Your task to perform on an android device: Open Reddit.com Image 0: 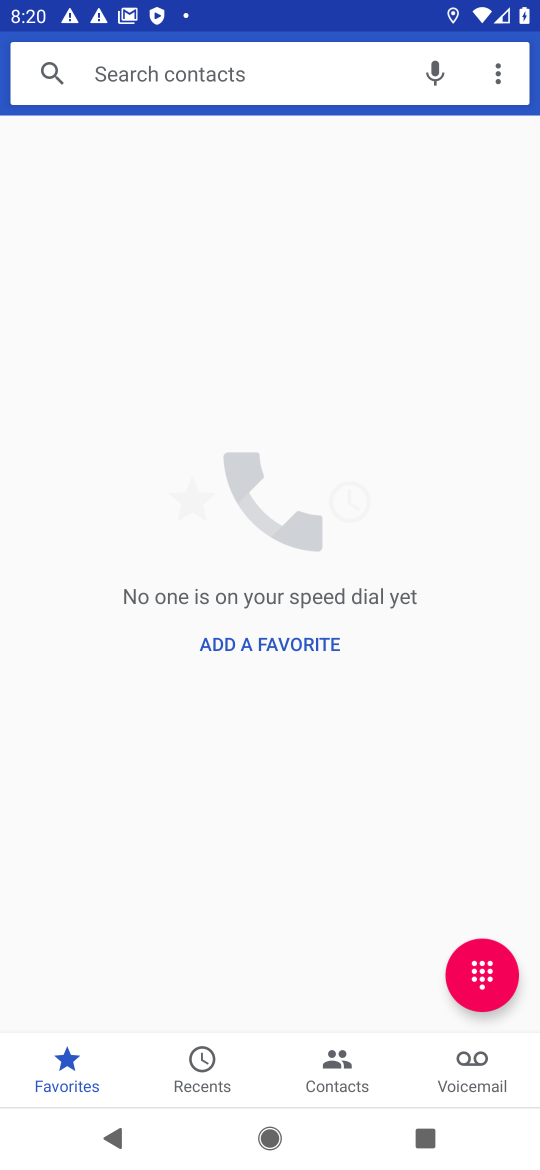
Step 0: press home button
Your task to perform on an android device: Open Reddit.com Image 1: 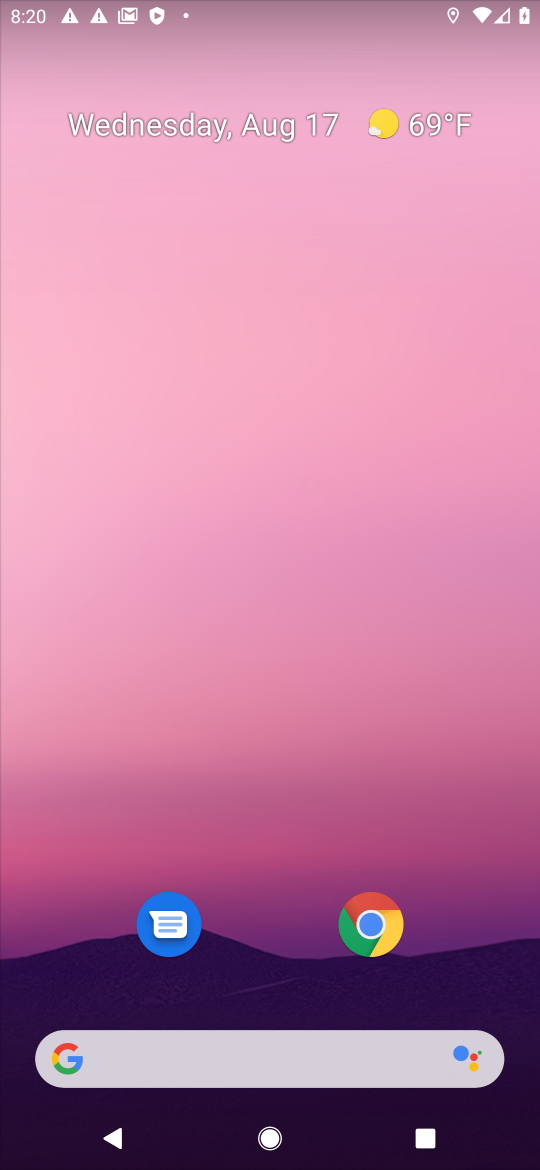
Step 1: drag from (308, 957) to (400, 41)
Your task to perform on an android device: Open Reddit.com Image 2: 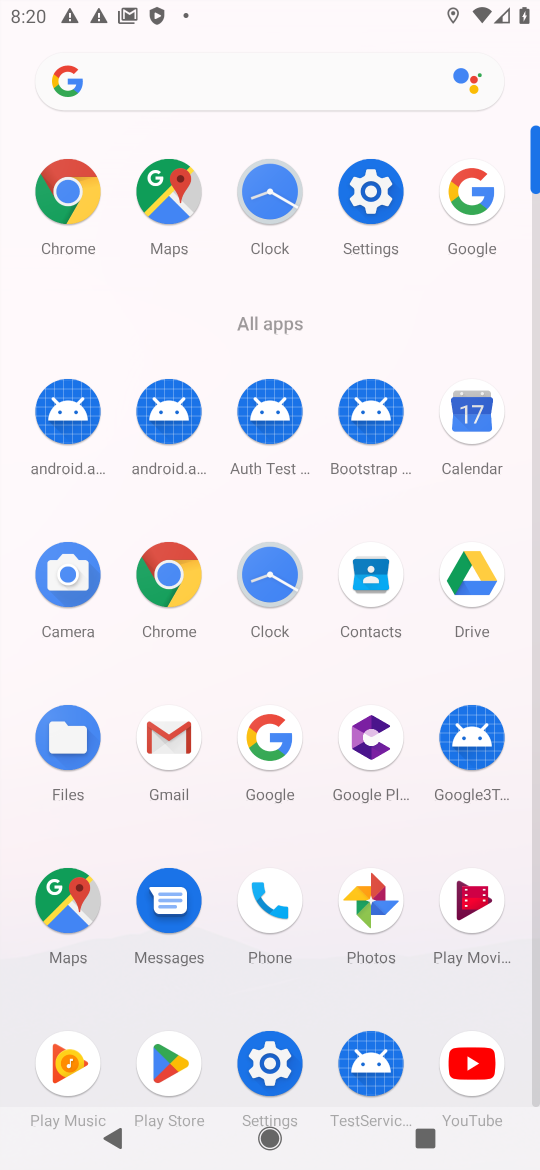
Step 2: click (179, 559)
Your task to perform on an android device: Open Reddit.com Image 3: 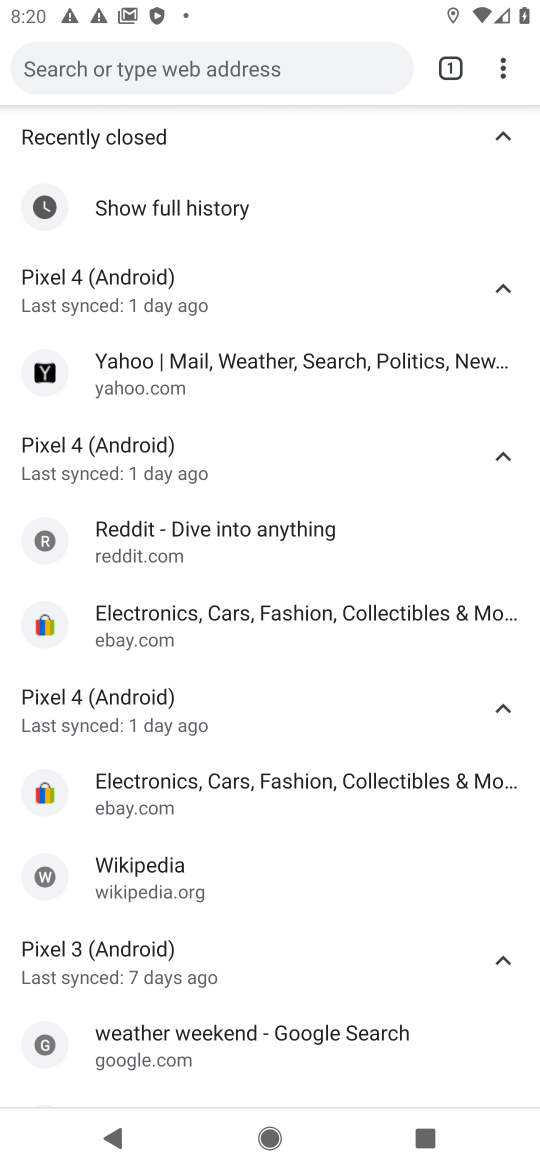
Step 3: click (358, 70)
Your task to perform on an android device: Open Reddit.com Image 4: 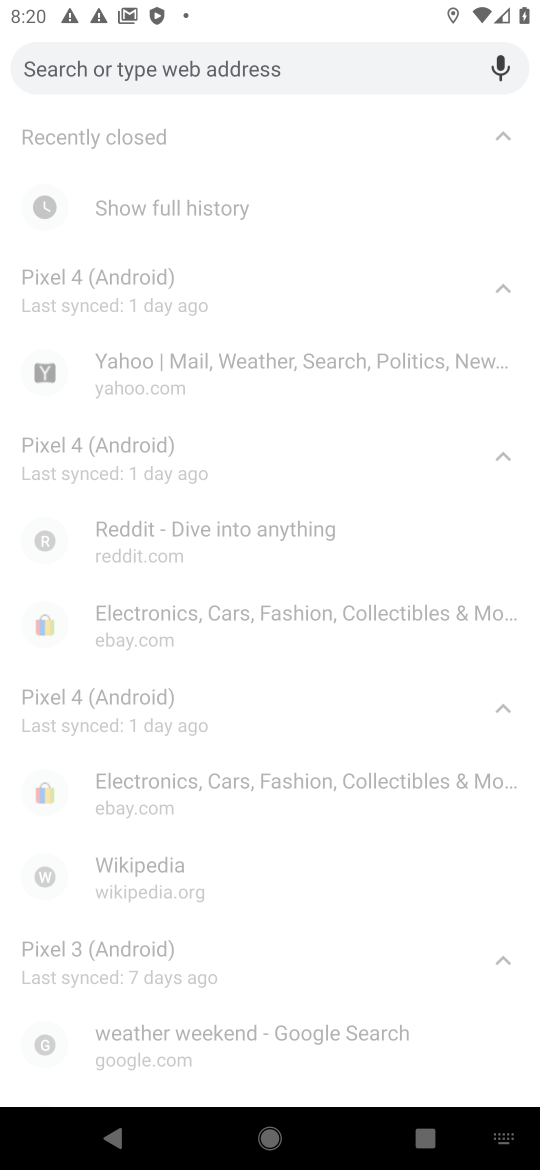
Step 4: type " Reddit.com"
Your task to perform on an android device: Open Reddit.com Image 5: 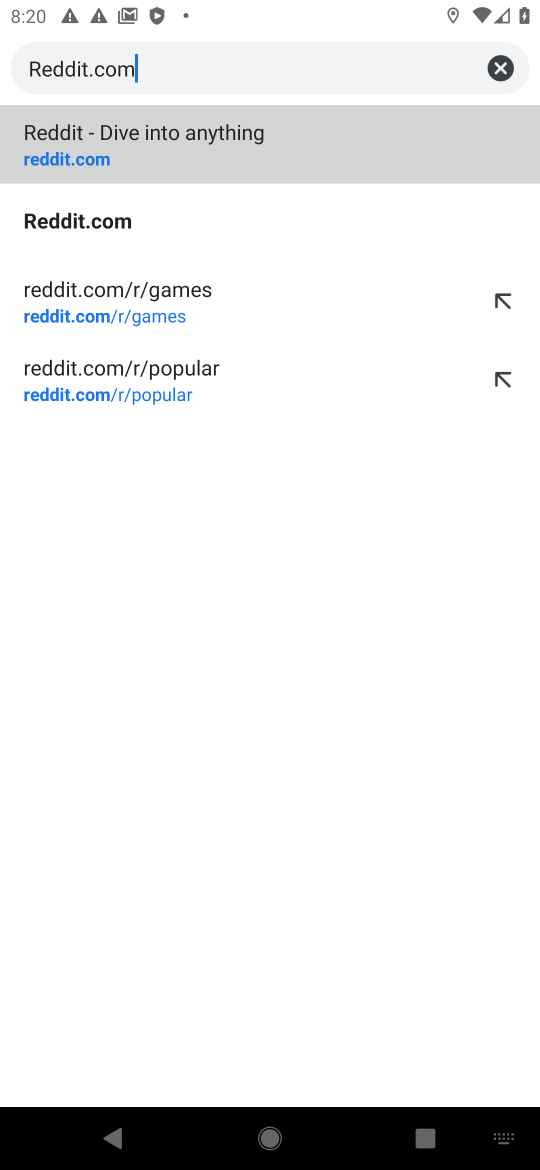
Step 5: click (78, 158)
Your task to perform on an android device: Open Reddit.com Image 6: 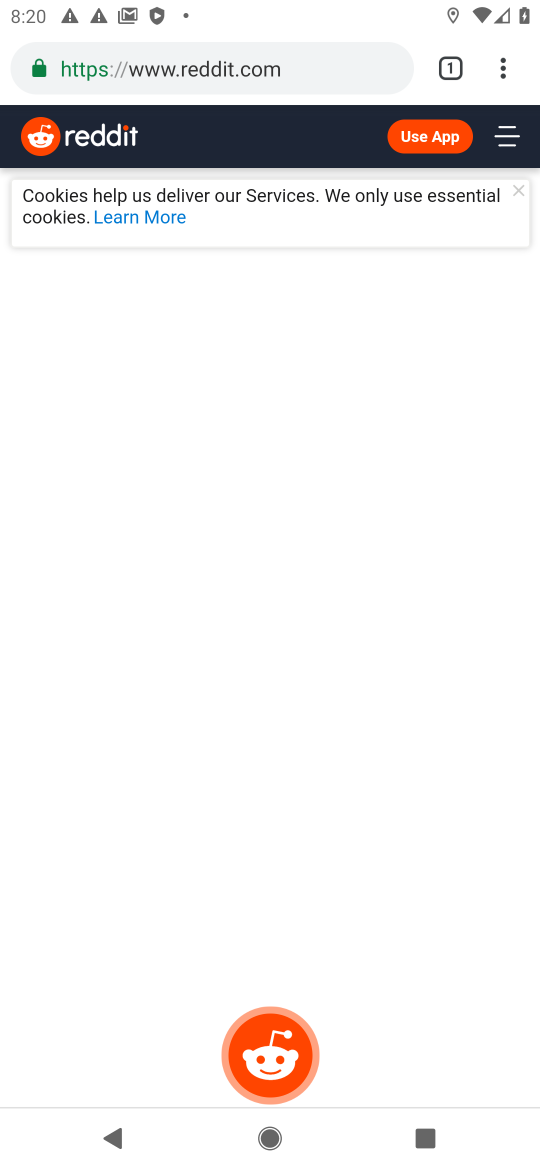
Step 6: task complete